Your task to perform on an android device: Search for vegetarian restaurants on Maps Image 0: 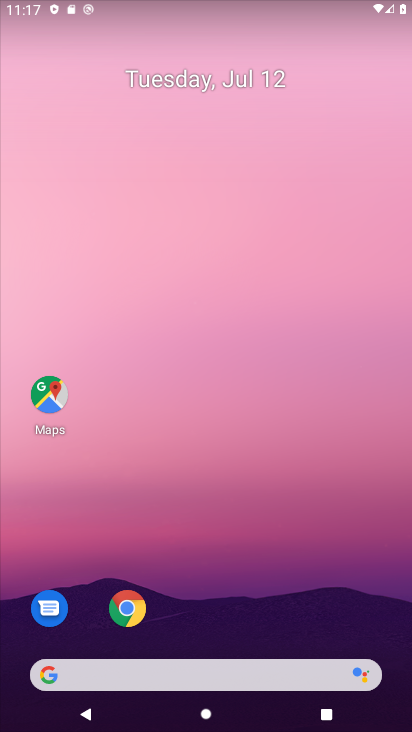
Step 0: click (339, 221)
Your task to perform on an android device: Search for vegetarian restaurants on Maps Image 1: 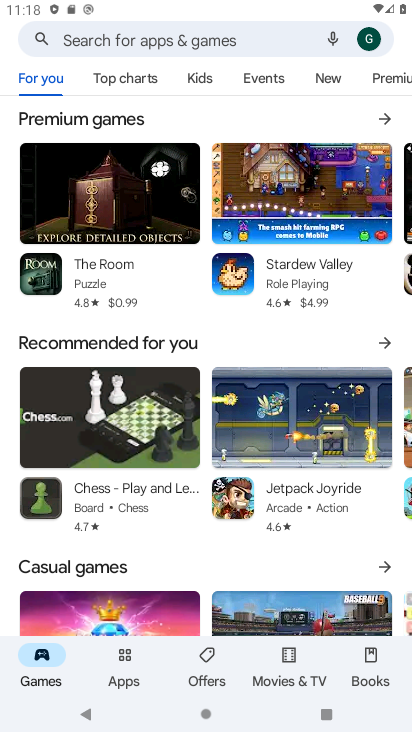
Step 1: press home button
Your task to perform on an android device: Search for vegetarian restaurants on Maps Image 2: 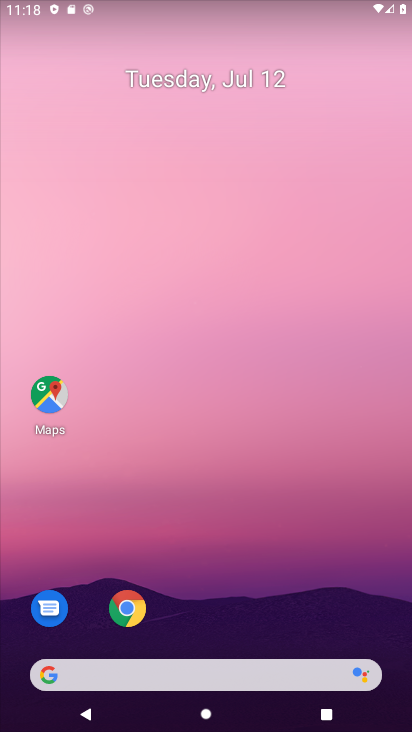
Step 2: click (237, 714)
Your task to perform on an android device: Search for vegetarian restaurants on Maps Image 3: 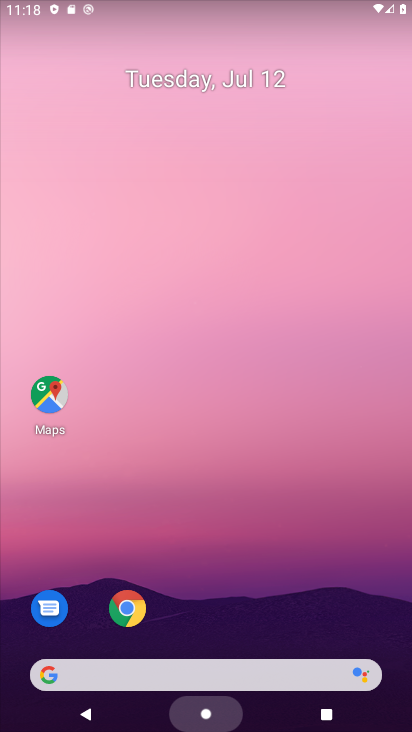
Step 3: click (201, 182)
Your task to perform on an android device: Search for vegetarian restaurants on Maps Image 4: 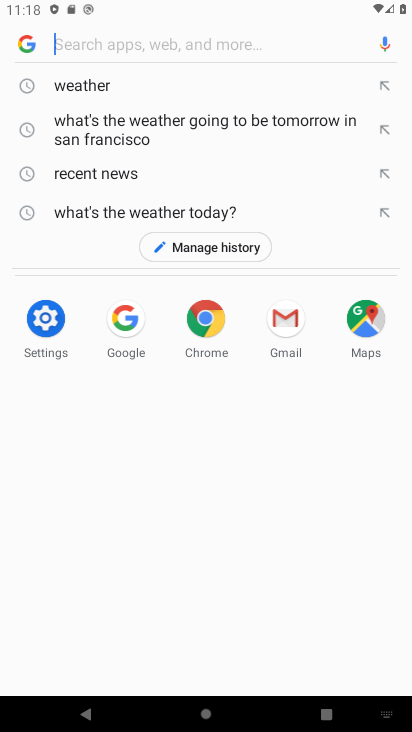
Step 4: press home button
Your task to perform on an android device: Search for vegetarian restaurants on Maps Image 5: 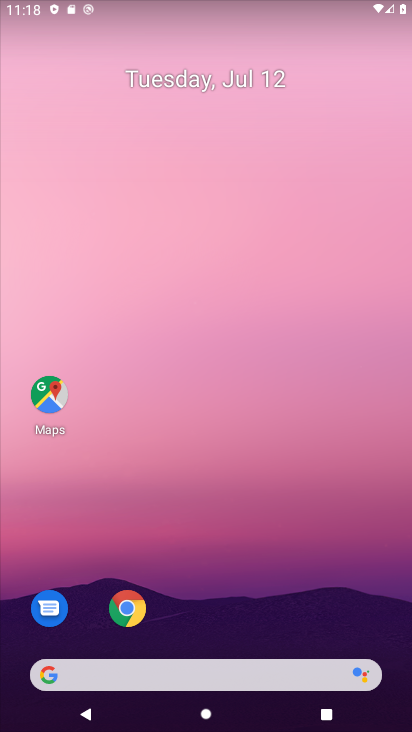
Step 5: drag from (264, 726) to (264, 123)
Your task to perform on an android device: Search for vegetarian restaurants on Maps Image 6: 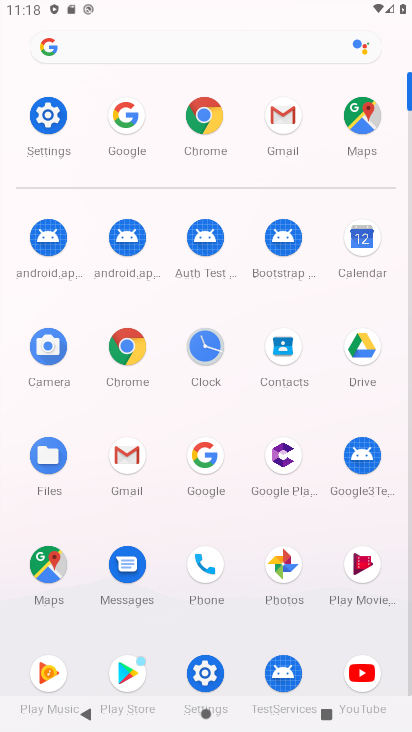
Step 6: click (51, 558)
Your task to perform on an android device: Search for vegetarian restaurants on Maps Image 7: 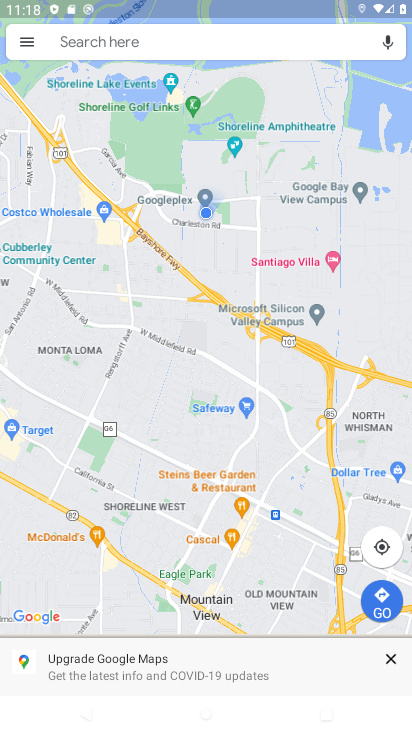
Step 7: click (141, 48)
Your task to perform on an android device: Search for vegetarian restaurants on Maps Image 8: 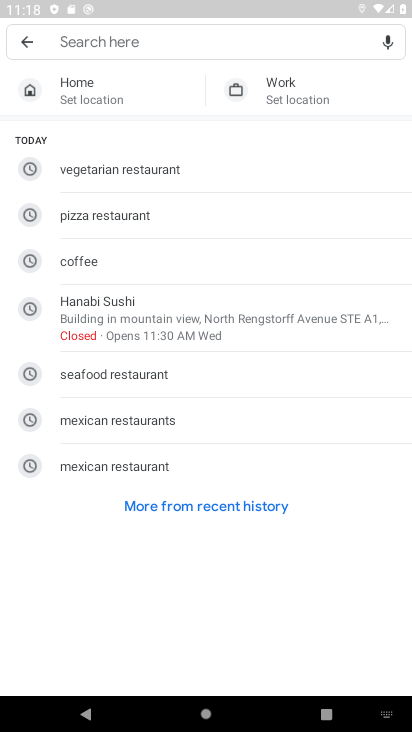
Step 8: type "vegetarian restaurants"
Your task to perform on an android device: Search for vegetarian restaurants on Maps Image 9: 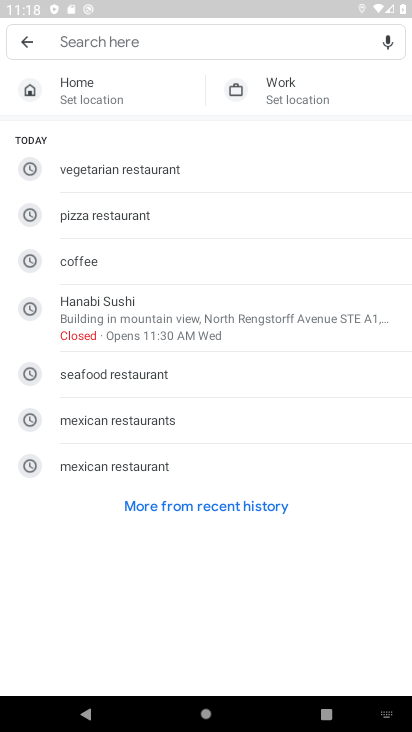
Step 9: click (136, 168)
Your task to perform on an android device: Search for vegetarian restaurants on Maps Image 10: 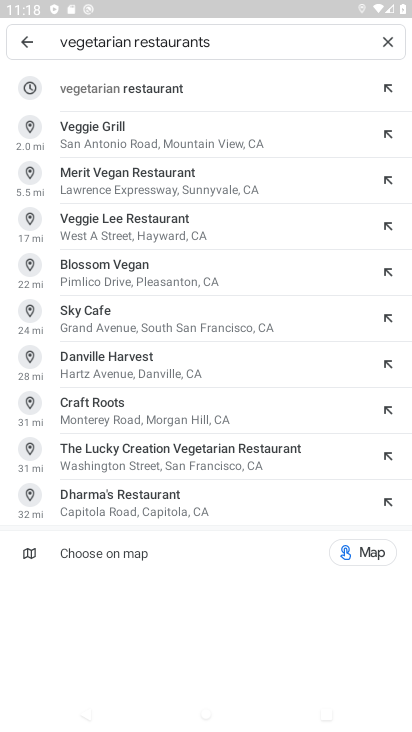
Step 10: click (131, 88)
Your task to perform on an android device: Search for vegetarian restaurants on Maps Image 11: 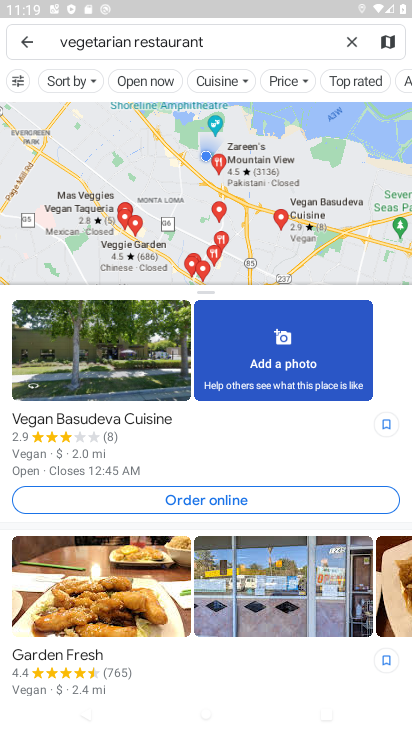
Step 11: task complete